Your task to perform on an android device: change the clock display to digital Image 0: 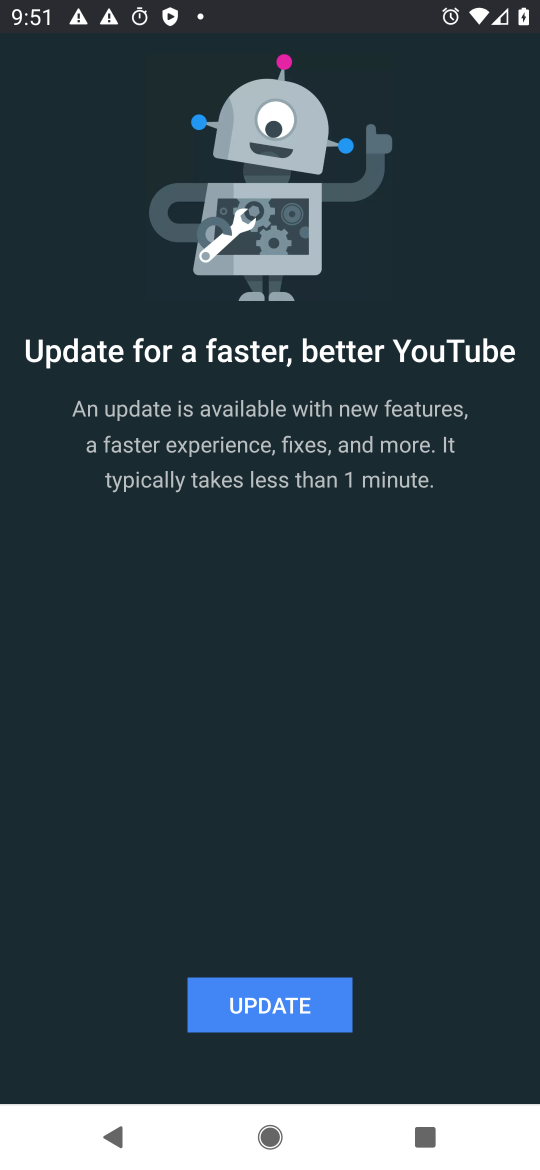
Step 0: drag from (273, 827) to (351, 719)
Your task to perform on an android device: change the clock display to digital Image 1: 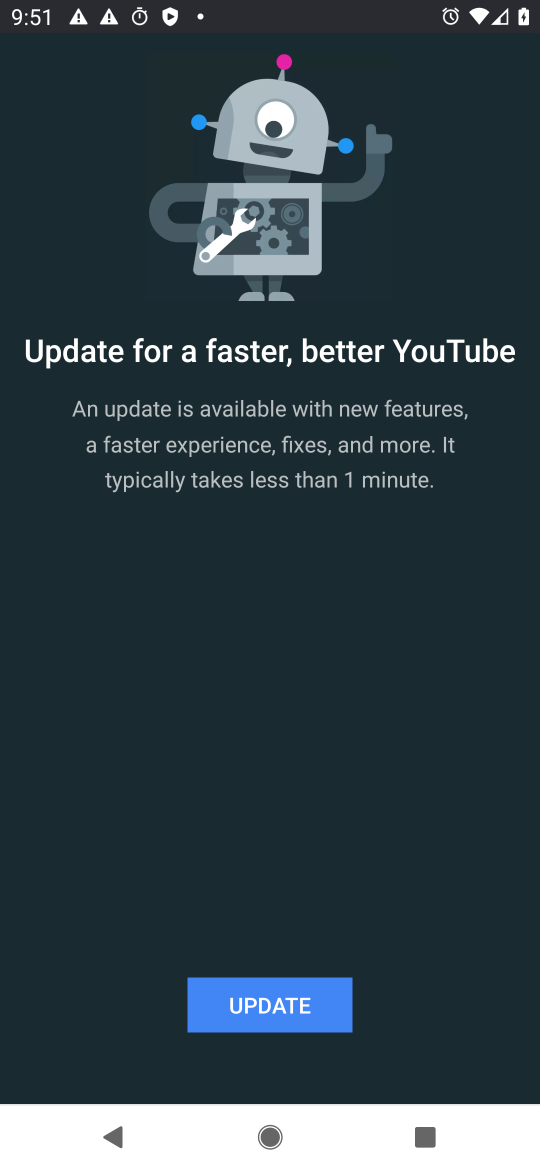
Step 1: press home button
Your task to perform on an android device: change the clock display to digital Image 2: 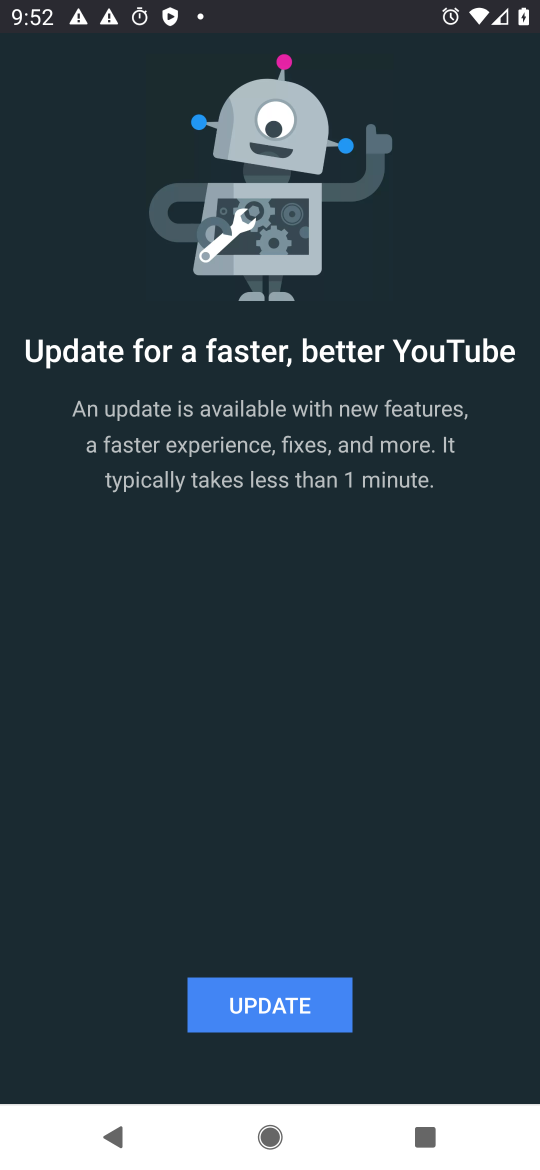
Step 2: drag from (300, 949) to (455, 0)
Your task to perform on an android device: change the clock display to digital Image 3: 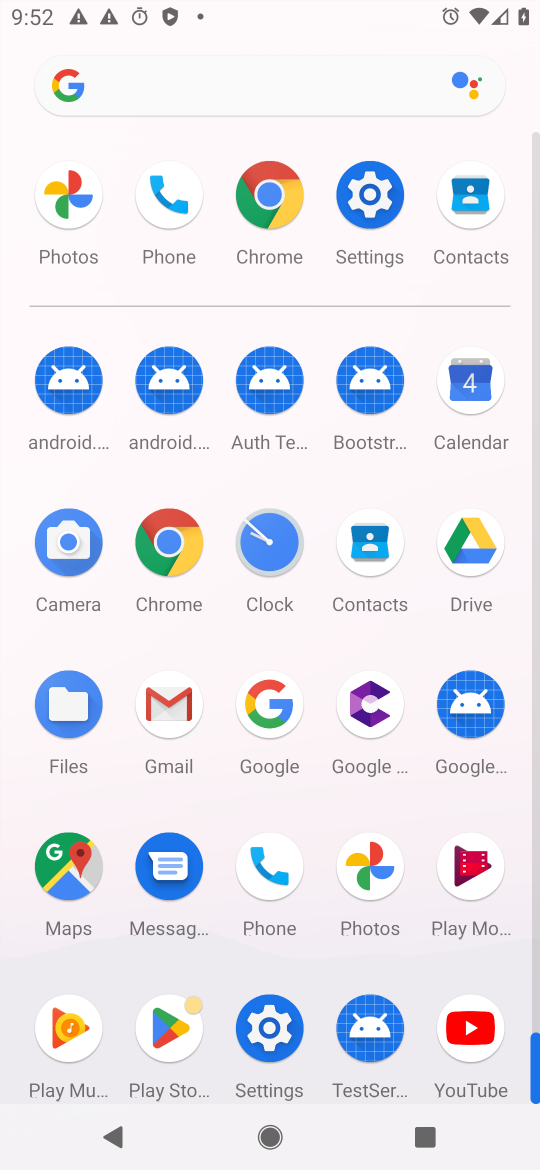
Step 3: click (279, 1022)
Your task to perform on an android device: change the clock display to digital Image 4: 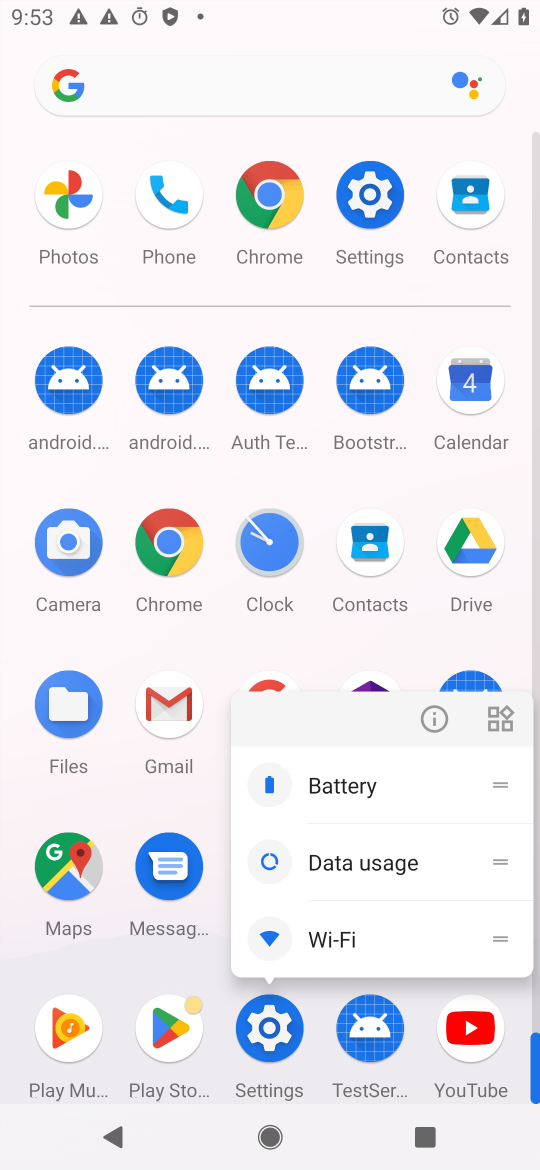
Step 4: click (432, 710)
Your task to perform on an android device: change the clock display to digital Image 5: 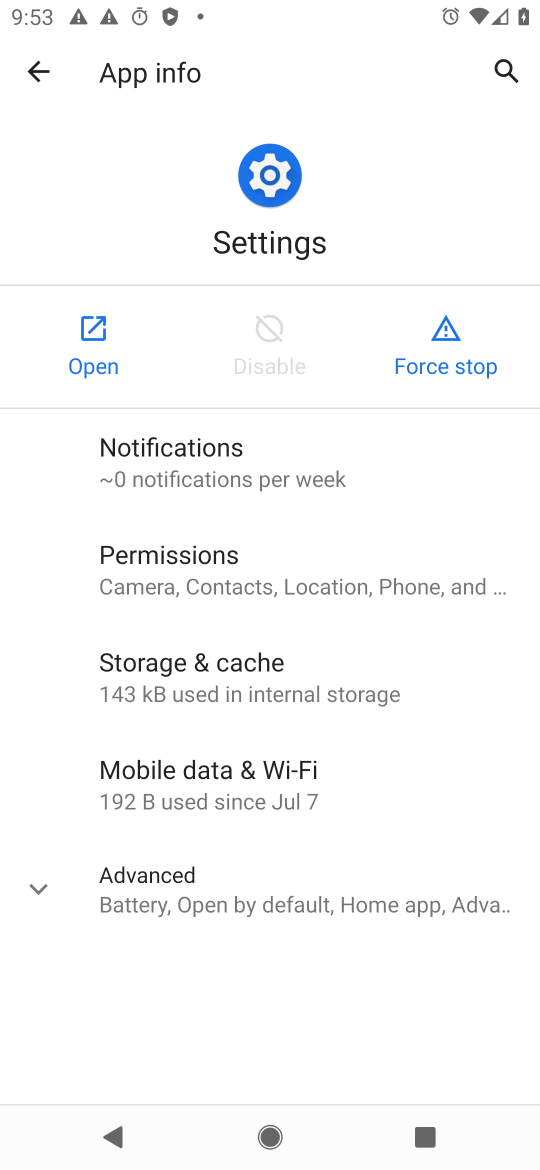
Step 5: click (85, 351)
Your task to perform on an android device: change the clock display to digital Image 6: 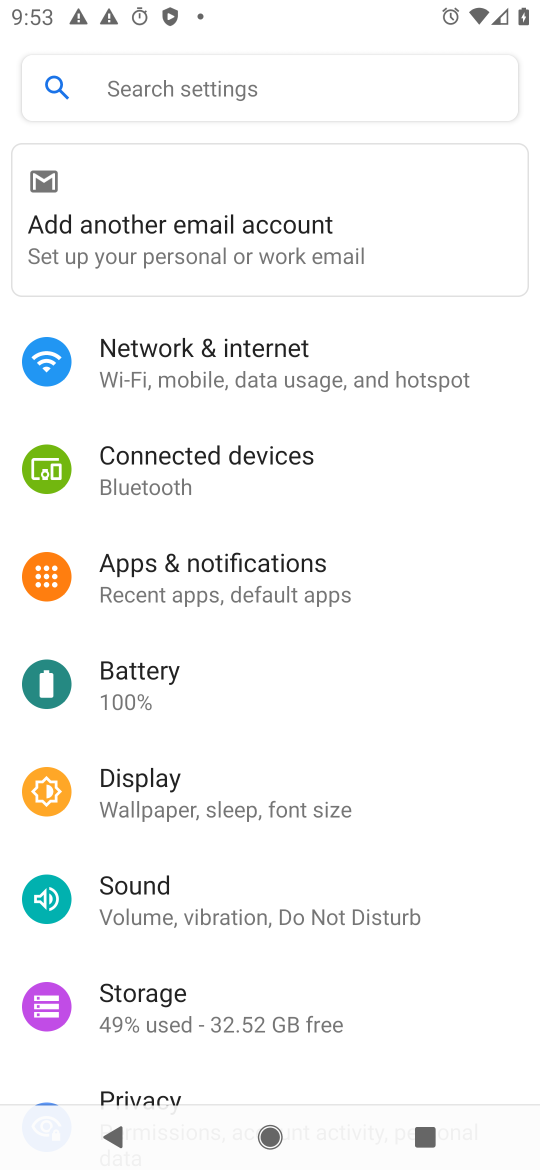
Step 6: press home button
Your task to perform on an android device: change the clock display to digital Image 7: 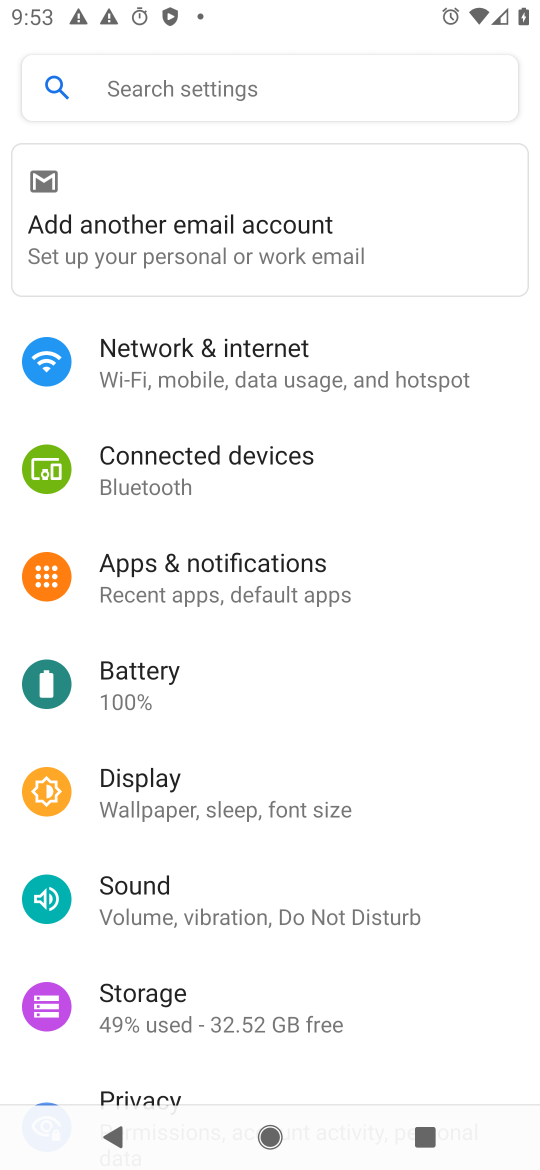
Step 7: drag from (255, 973) to (369, 188)
Your task to perform on an android device: change the clock display to digital Image 8: 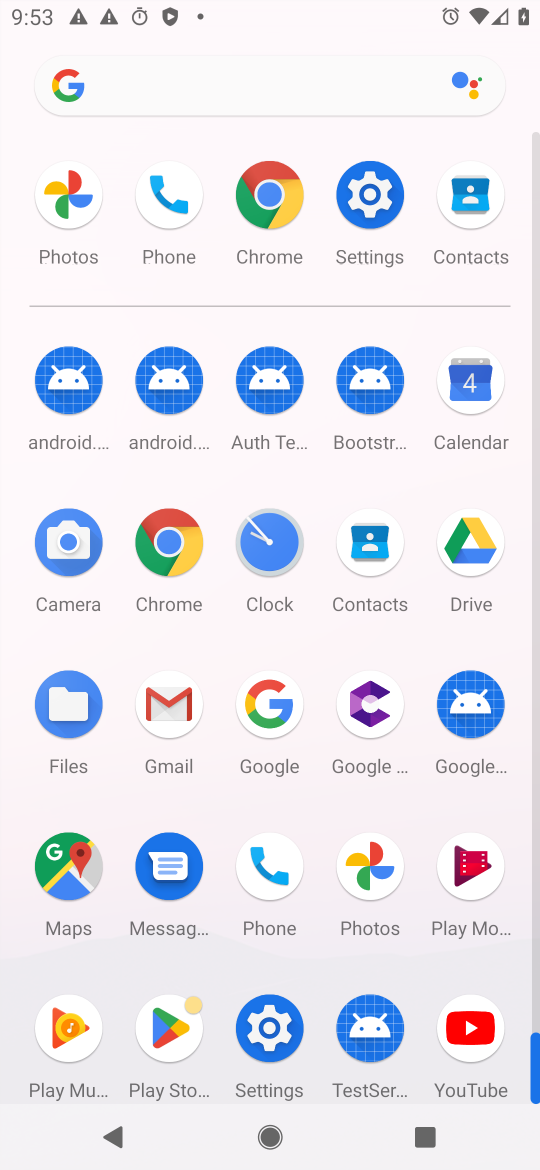
Step 8: click (266, 534)
Your task to perform on an android device: change the clock display to digital Image 9: 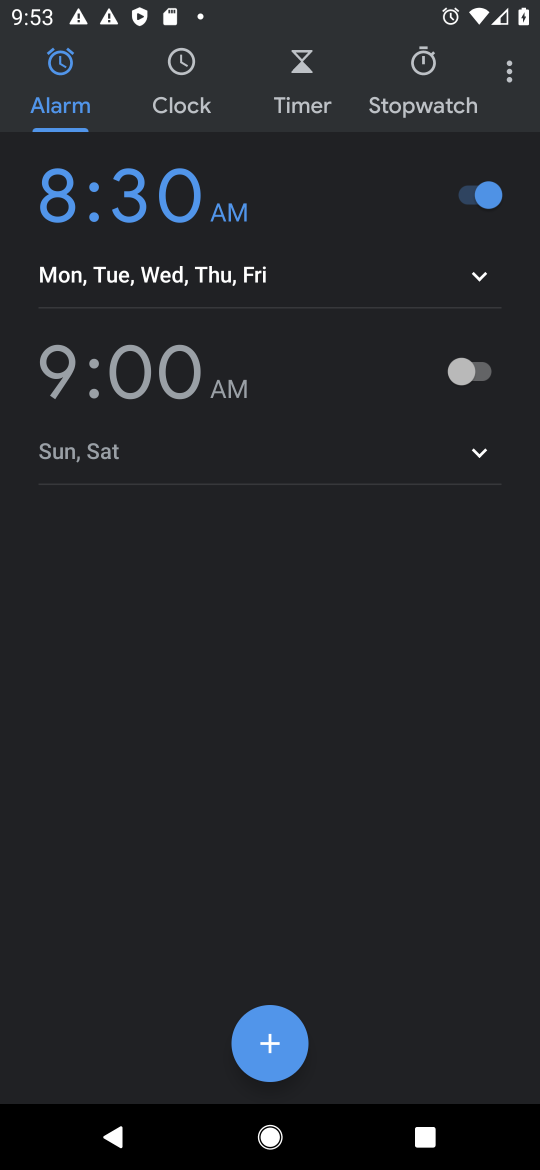
Step 9: drag from (508, 69) to (360, 147)
Your task to perform on an android device: change the clock display to digital Image 10: 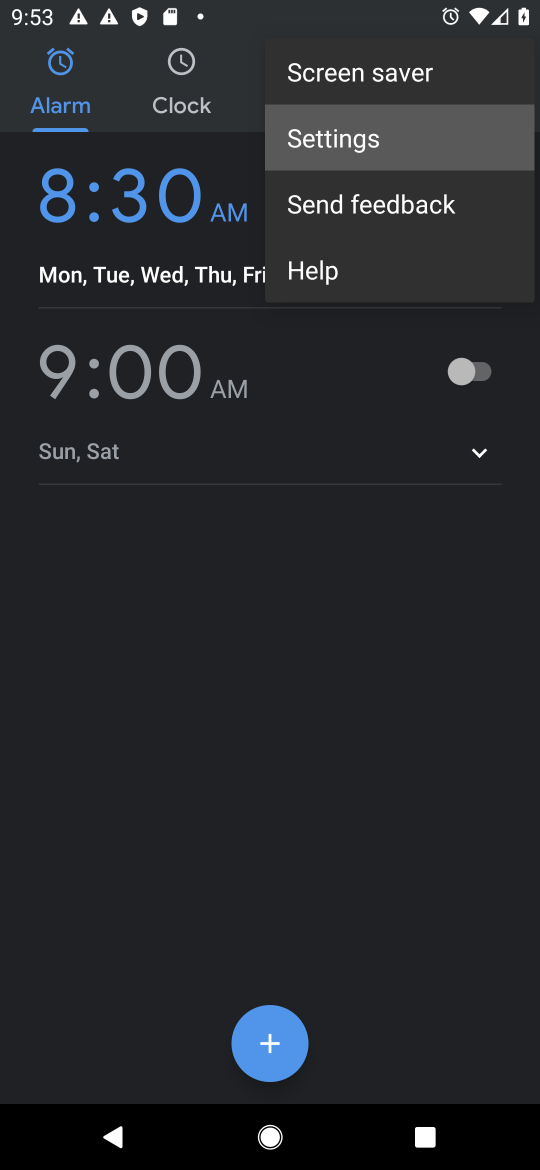
Step 10: click (360, 147)
Your task to perform on an android device: change the clock display to digital Image 11: 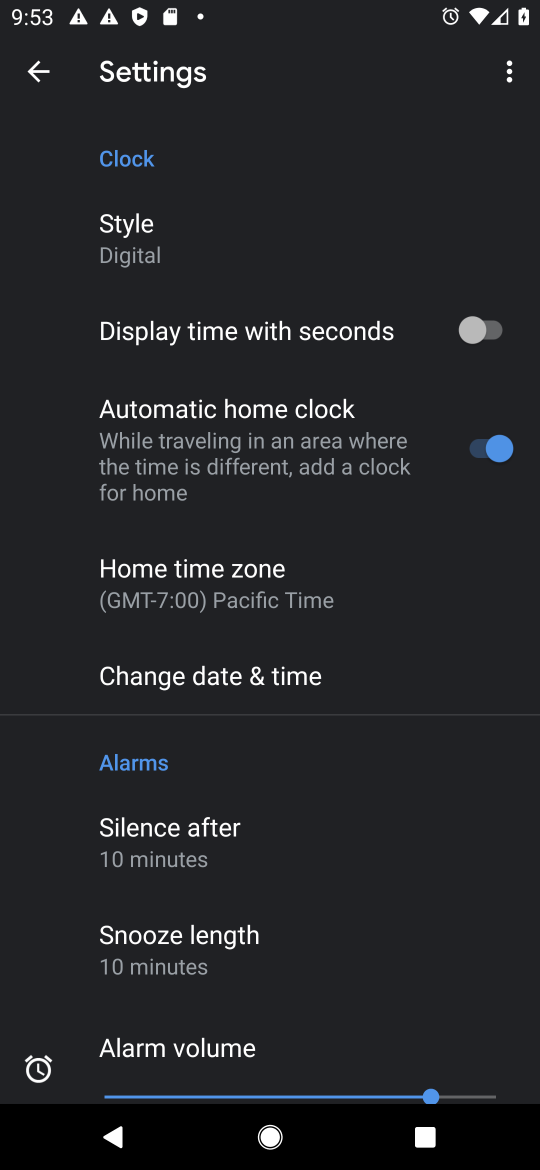
Step 11: click (137, 261)
Your task to perform on an android device: change the clock display to digital Image 12: 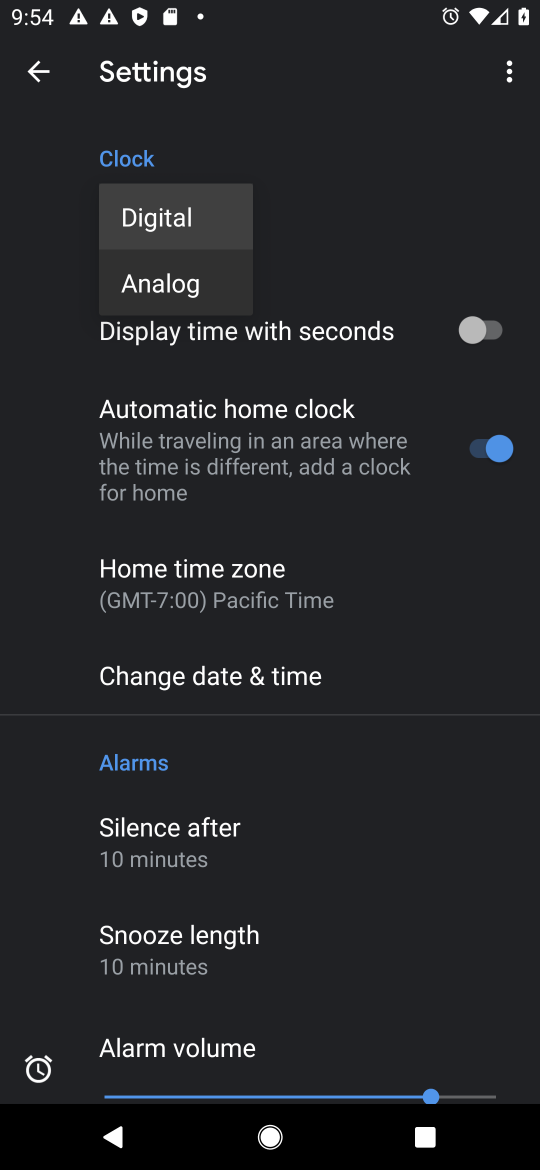
Step 12: click (181, 214)
Your task to perform on an android device: change the clock display to digital Image 13: 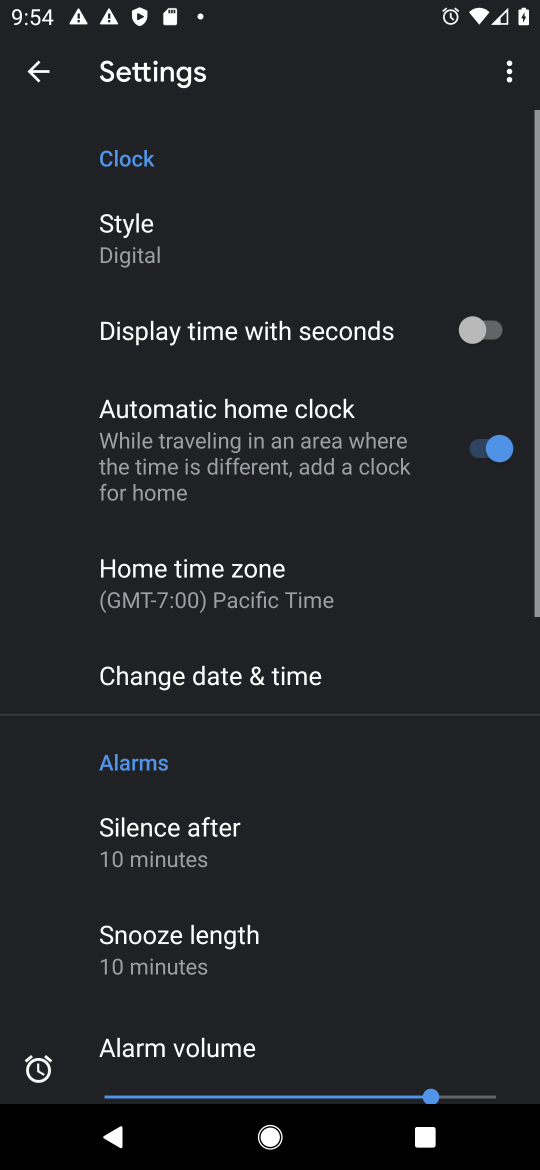
Step 13: task complete